Your task to perform on an android device: set an alarm Image 0: 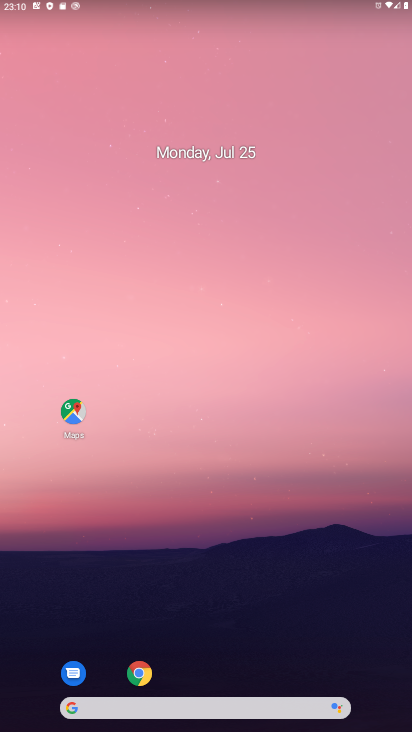
Step 0: press home button
Your task to perform on an android device: set an alarm Image 1: 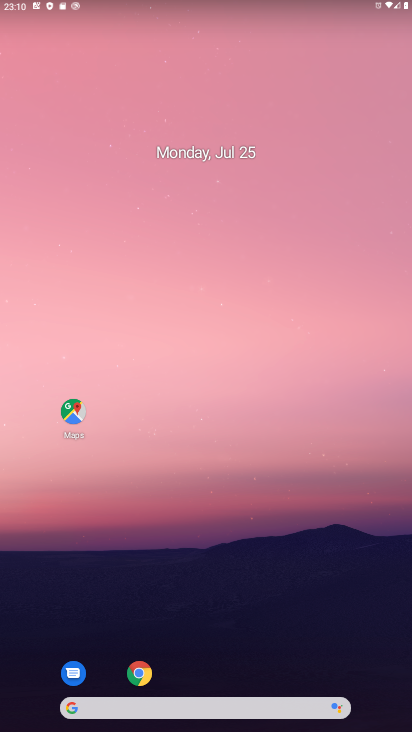
Step 1: drag from (221, 670) to (187, 107)
Your task to perform on an android device: set an alarm Image 2: 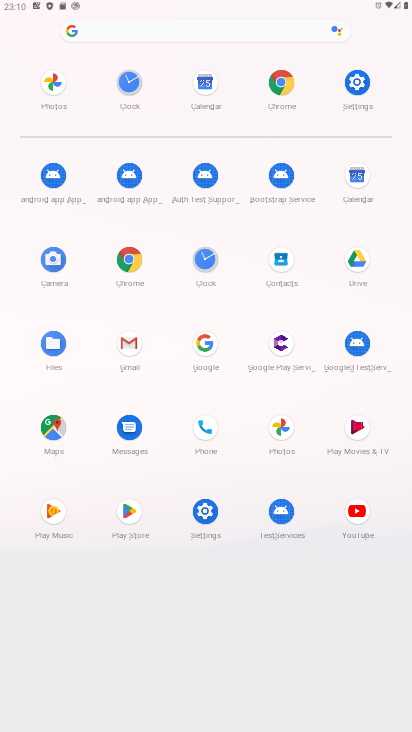
Step 2: click (204, 254)
Your task to perform on an android device: set an alarm Image 3: 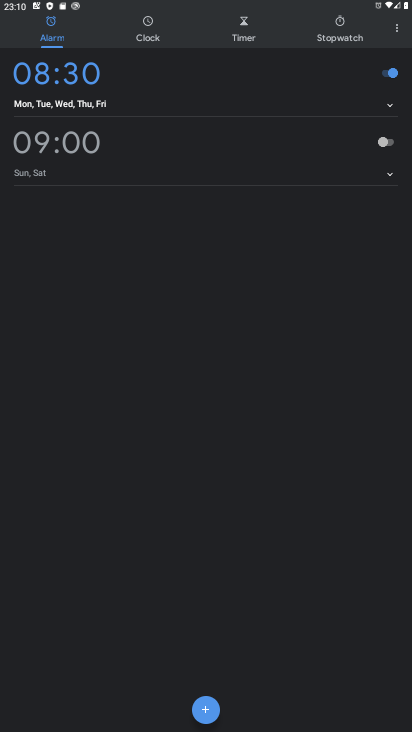
Step 3: click (394, 145)
Your task to perform on an android device: set an alarm Image 4: 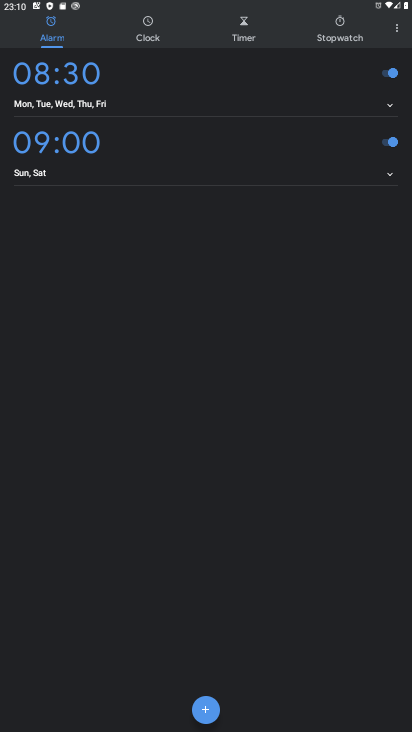
Step 4: task complete